Your task to perform on an android device: Set the phone to "Do not disturb". Image 0: 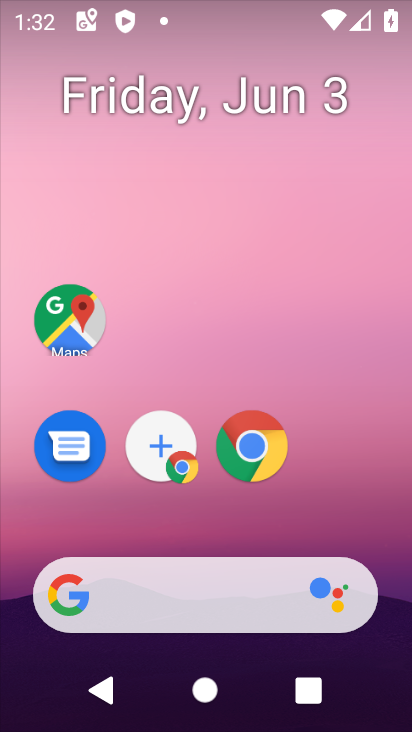
Step 0: drag from (232, 665) to (309, 24)
Your task to perform on an android device: Set the phone to "Do not disturb". Image 1: 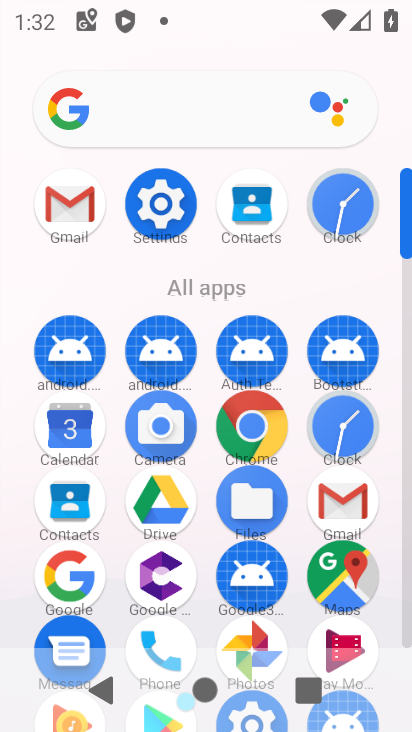
Step 1: click (158, 190)
Your task to perform on an android device: Set the phone to "Do not disturb". Image 2: 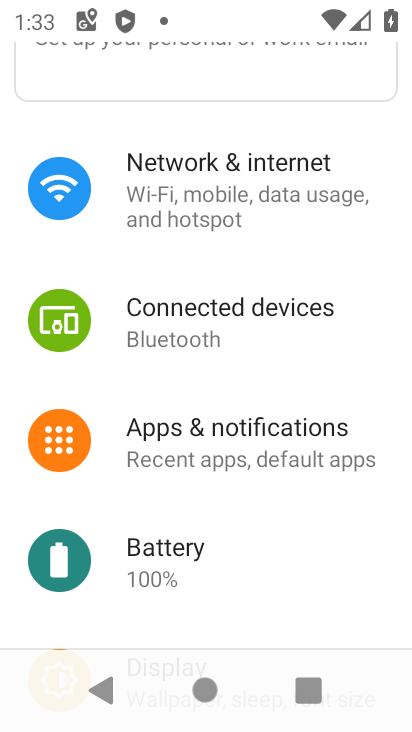
Step 2: drag from (339, 567) to (319, 36)
Your task to perform on an android device: Set the phone to "Do not disturb". Image 3: 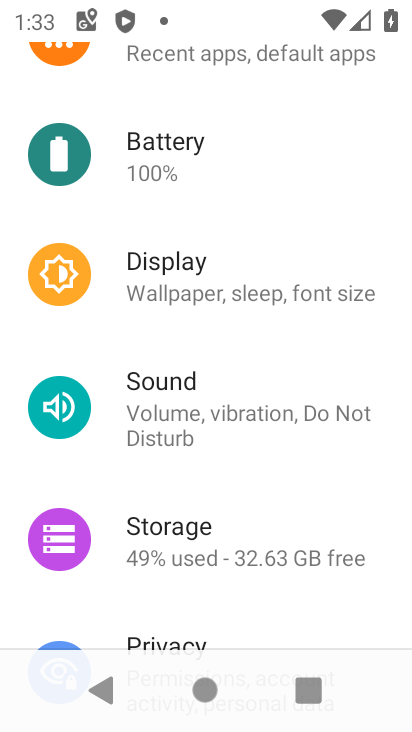
Step 3: click (332, 419)
Your task to perform on an android device: Set the phone to "Do not disturb". Image 4: 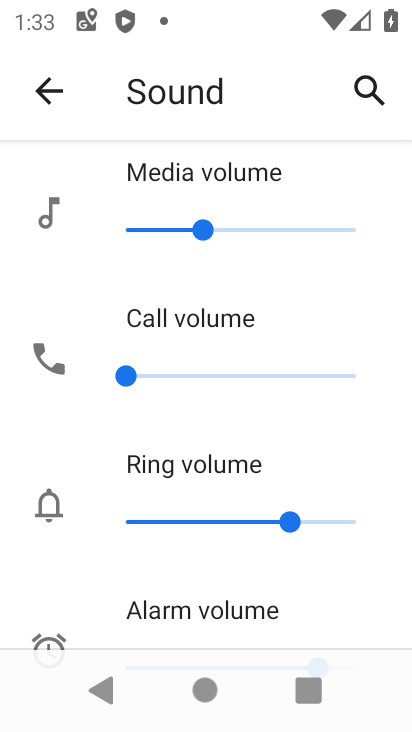
Step 4: drag from (285, 621) to (294, 86)
Your task to perform on an android device: Set the phone to "Do not disturb". Image 5: 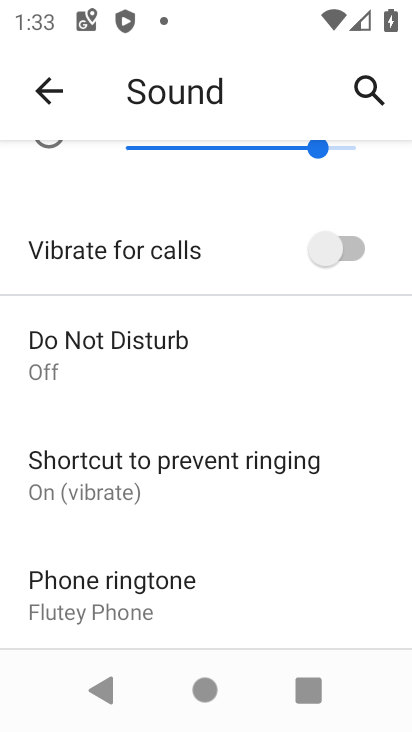
Step 5: drag from (321, 553) to (305, 71)
Your task to perform on an android device: Set the phone to "Do not disturb". Image 6: 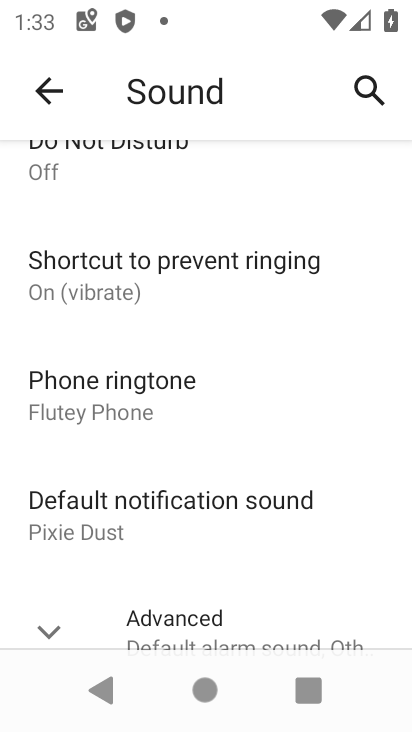
Step 6: drag from (178, 581) to (172, 101)
Your task to perform on an android device: Set the phone to "Do not disturb". Image 7: 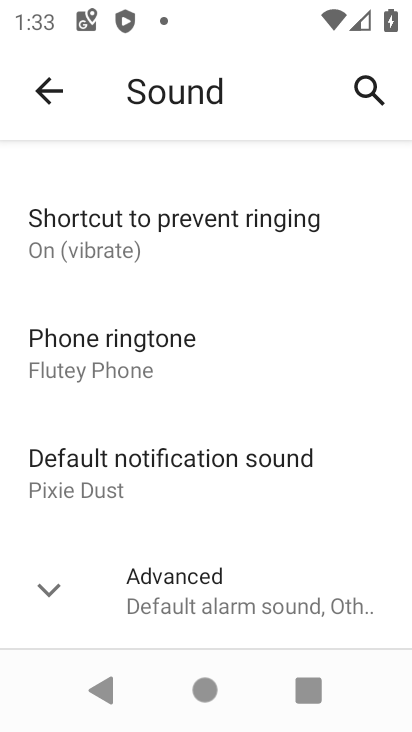
Step 7: drag from (207, 215) to (169, 662)
Your task to perform on an android device: Set the phone to "Do not disturb". Image 8: 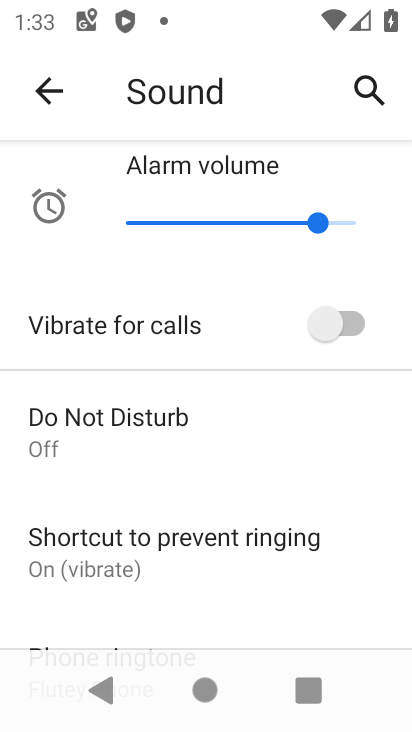
Step 8: click (207, 421)
Your task to perform on an android device: Set the phone to "Do not disturb". Image 9: 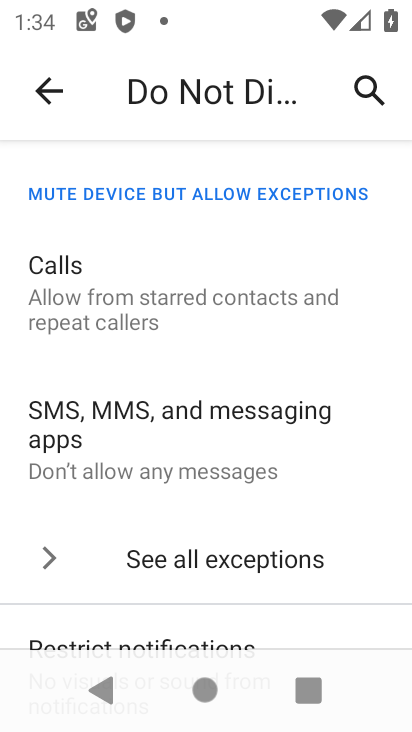
Step 9: drag from (246, 287) to (216, 619)
Your task to perform on an android device: Set the phone to "Do not disturb". Image 10: 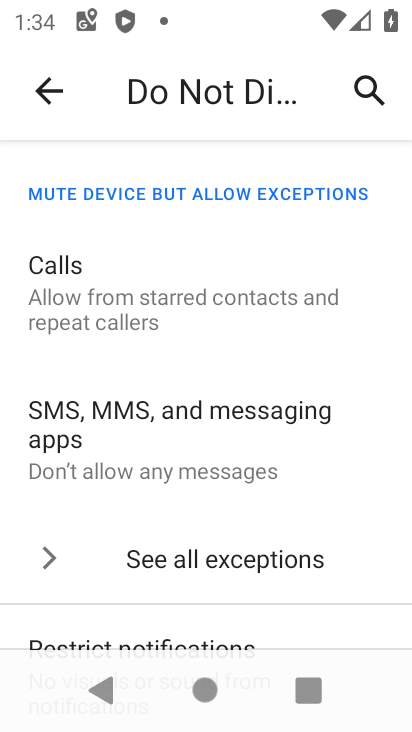
Step 10: drag from (358, 232) to (318, 597)
Your task to perform on an android device: Set the phone to "Do not disturb". Image 11: 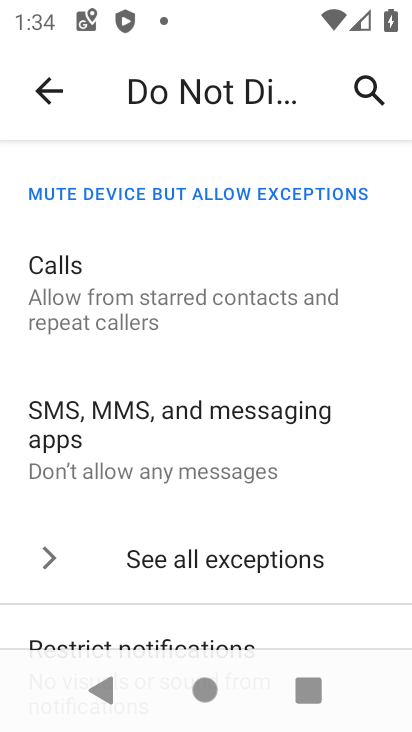
Step 11: drag from (318, 225) to (253, 629)
Your task to perform on an android device: Set the phone to "Do not disturb". Image 12: 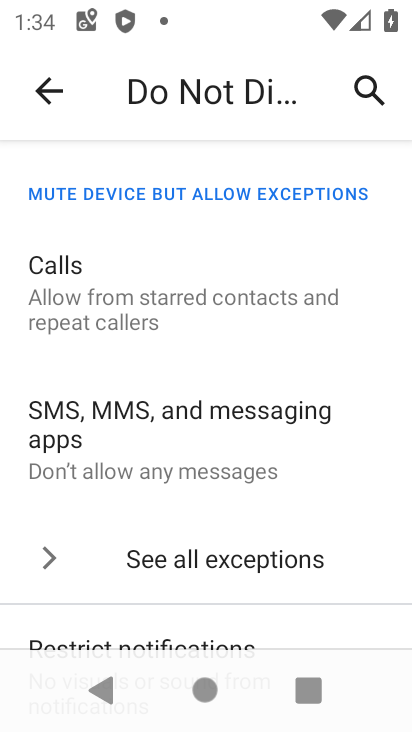
Step 12: drag from (200, 567) to (282, 16)
Your task to perform on an android device: Set the phone to "Do not disturb". Image 13: 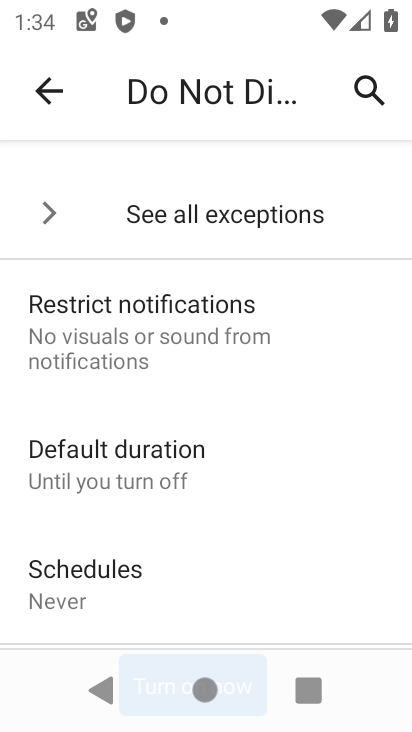
Step 13: drag from (175, 605) to (223, 62)
Your task to perform on an android device: Set the phone to "Do not disturb". Image 14: 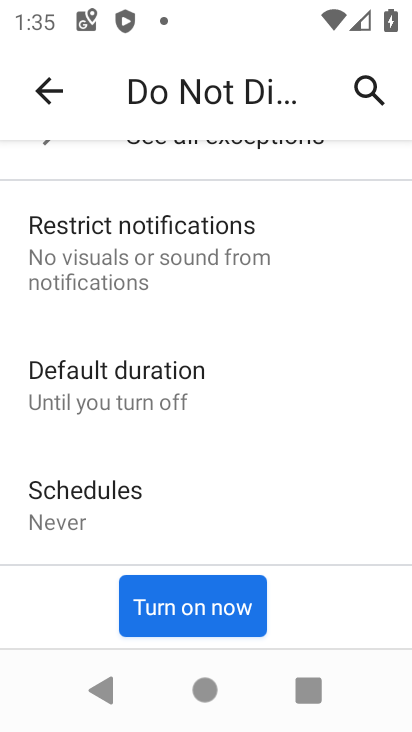
Step 14: click (167, 597)
Your task to perform on an android device: Set the phone to "Do not disturb". Image 15: 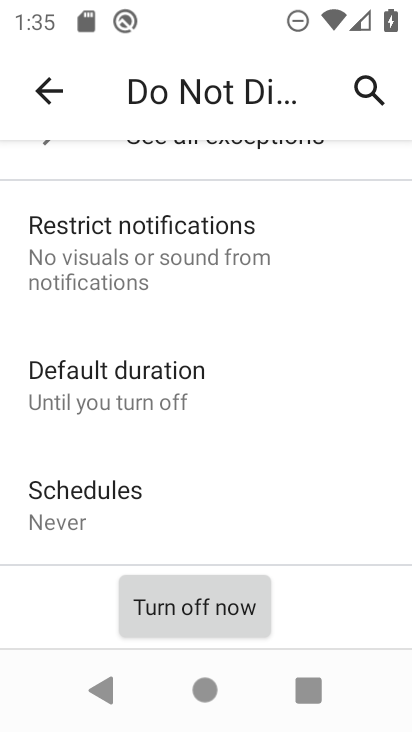
Step 15: task complete